Your task to perform on an android device: set the timer Image 0: 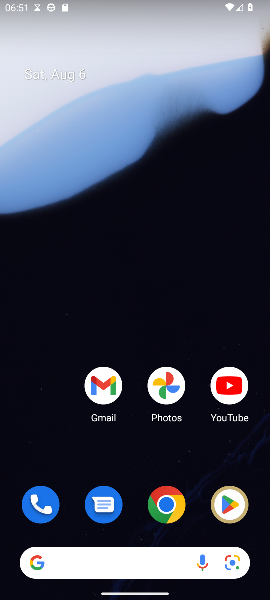
Step 0: drag from (129, 552) to (135, 208)
Your task to perform on an android device: set the timer Image 1: 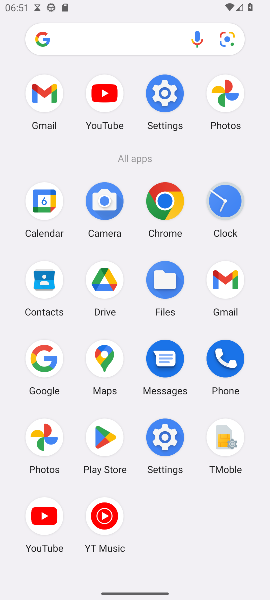
Step 1: click (221, 201)
Your task to perform on an android device: set the timer Image 2: 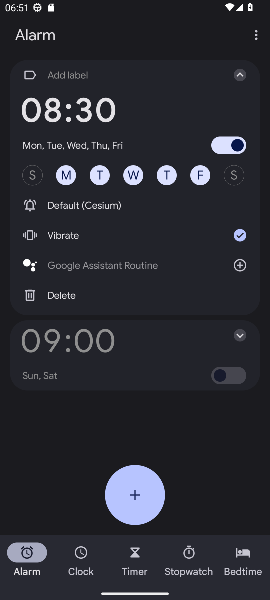
Step 2: click (139, 553)
Your task to perform on an android device: set the timer Image 3: 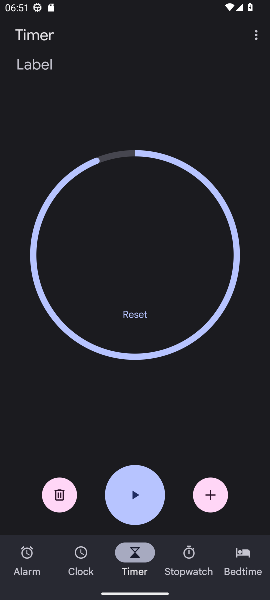
Step 3: click (64, 496)
Your task to perform on an android device: set the timer Image 4: 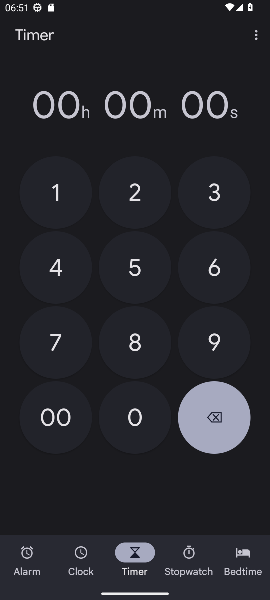
Step 4: type "1487"
Your task to perform on an android device: set the timer Image 5: 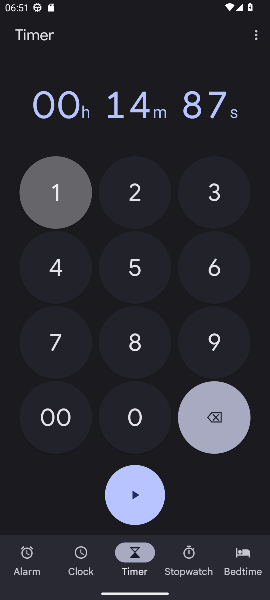
Step 5: click (143, 483)
Your task to perform on an android device: set the timer Image 6: 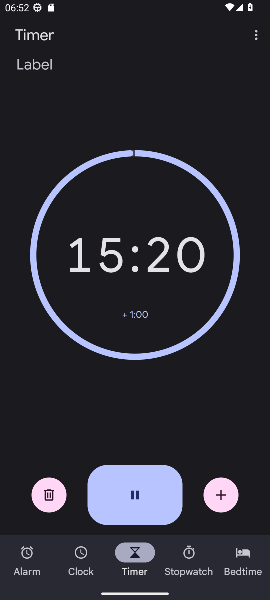
Step 6: click (143, 483)
Your task to perform on an android device: set the timer Image 7: 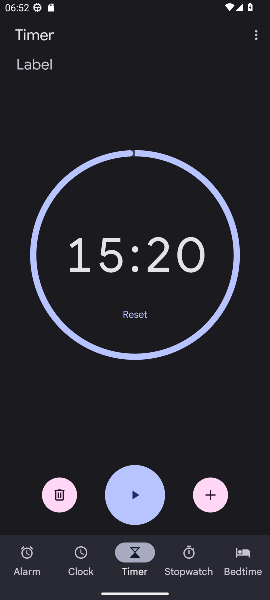
Step 7: task complete